Your task to perform on an android device: See recent photos Image 0: 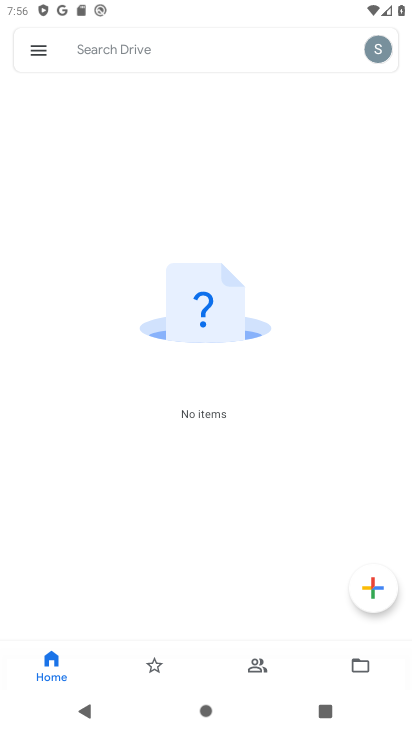
Step 0: press home button
Your task to perform on an android device: See recent photos Image 1: 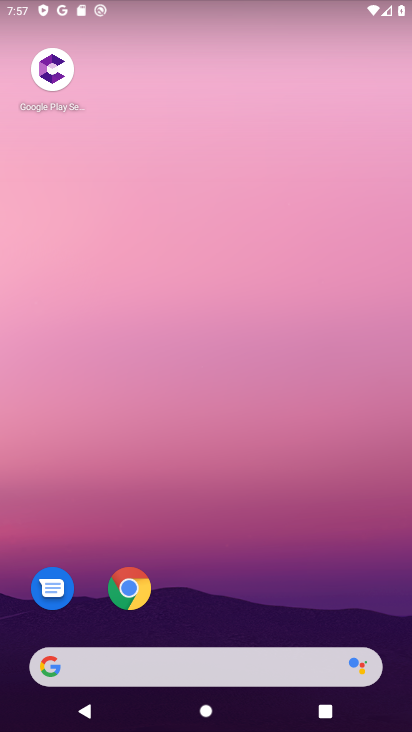
Step 1: press home button
Your task to perform on an android device: See recent photos Image 2: 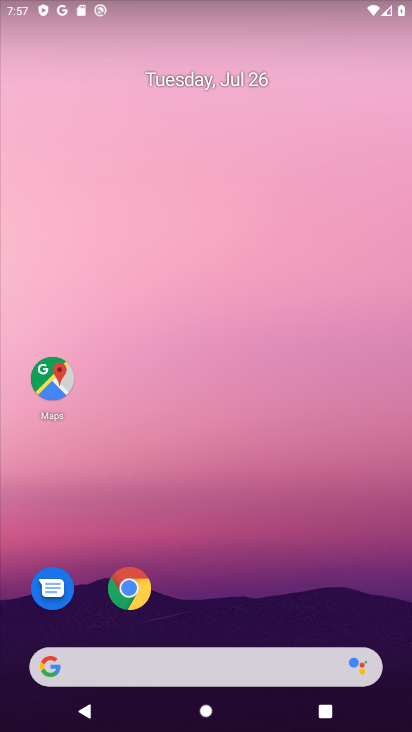
Step 2: drag from (273, 545) to (269, 54)
Your task to perform on an android device: See recent photos Image 3: 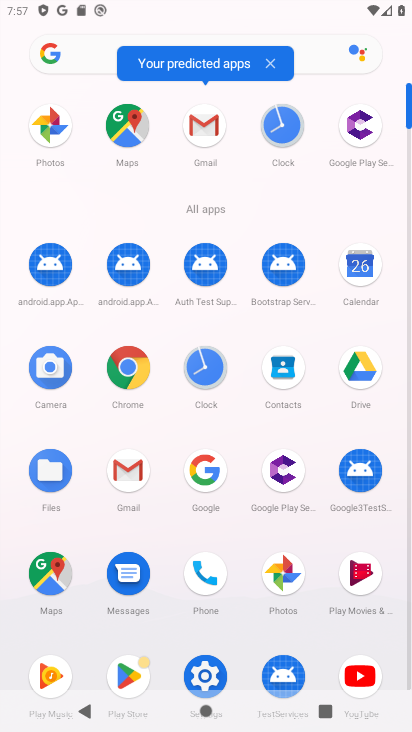
Step 3: click (276, 568)
Your task to perform on an android device: See recent photos Image 4: 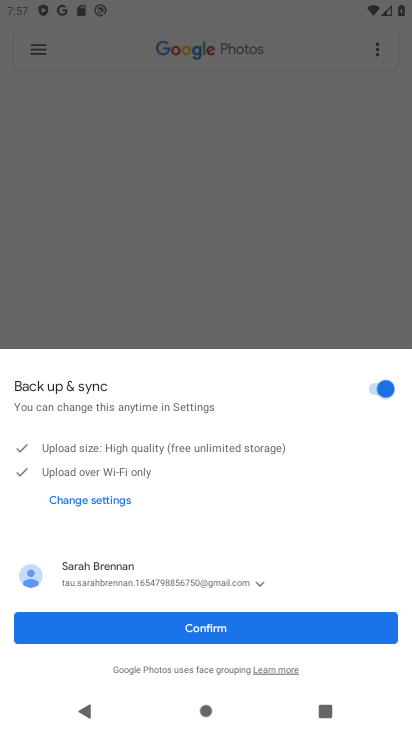
Step 4: click (155, 627)
Your task to perform on an android device: See recent photos Image 5: 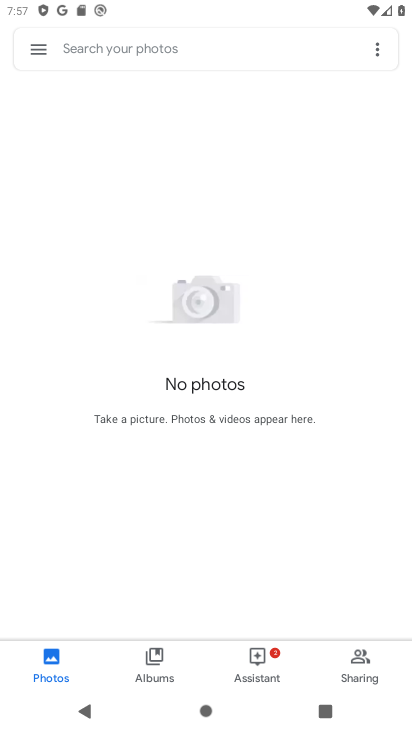
Step 5: task complete